Your task to perform on an android device: Open the stopwatch Image 0: 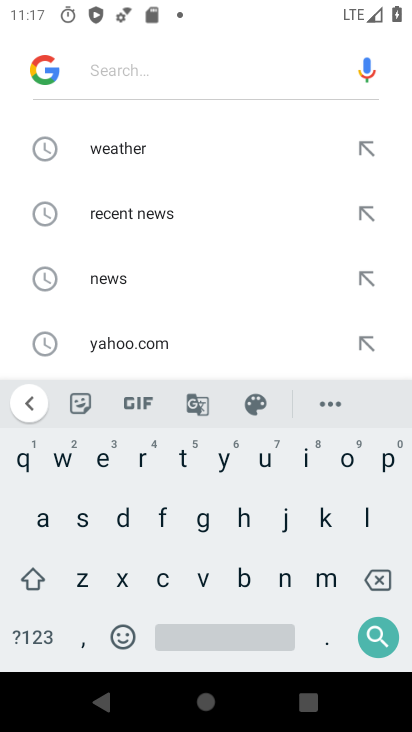
Step 0: press back button
Your task to perform on an android device: Open the stopwatch Image 1: 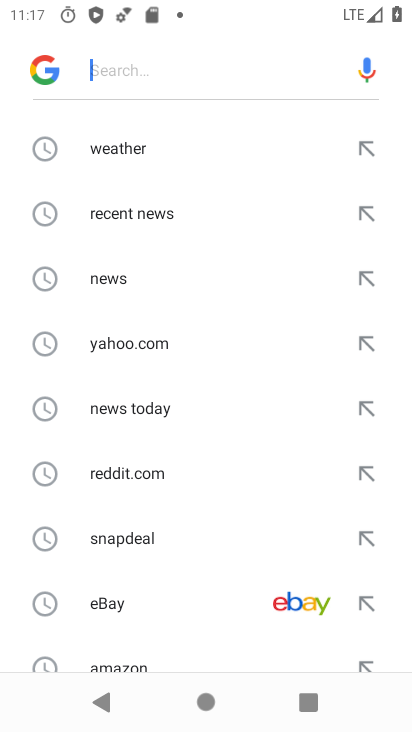
Step 1: press back button
Your task to perform on an android device: Open the stopwatch Image 2: 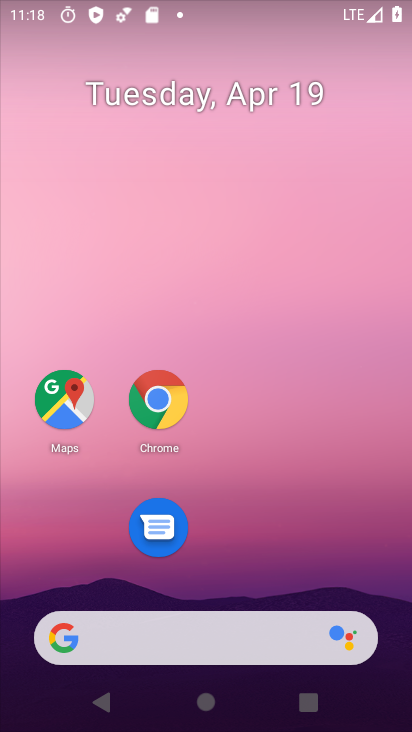
Step 2: drag from (249, 668) to (209, 219)
Your task to perform on an android device: Open the stopwatch Image 3: 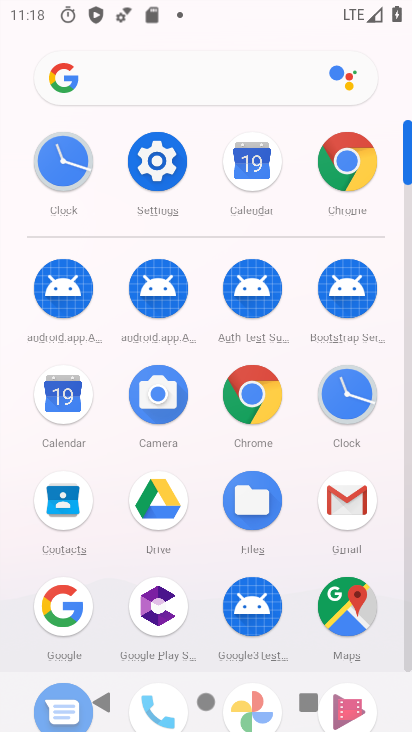
Step 3: click (62, 161)
Your task to perform on an android device: Open the stopwatch Image 4: 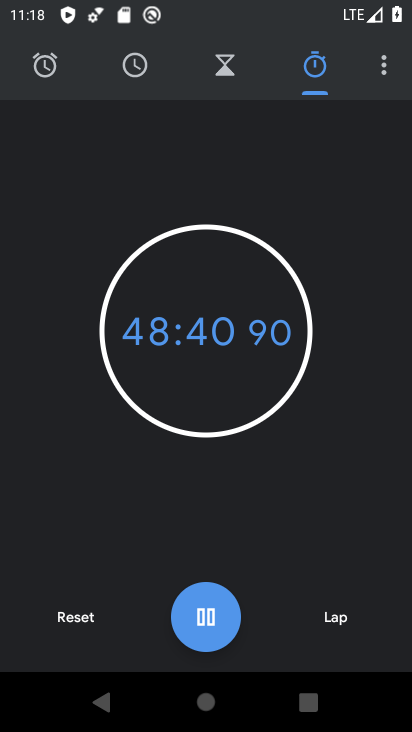
Step 4: click (200, 639)
Your task to perform on an android device: Open the stopwatch Image 5: 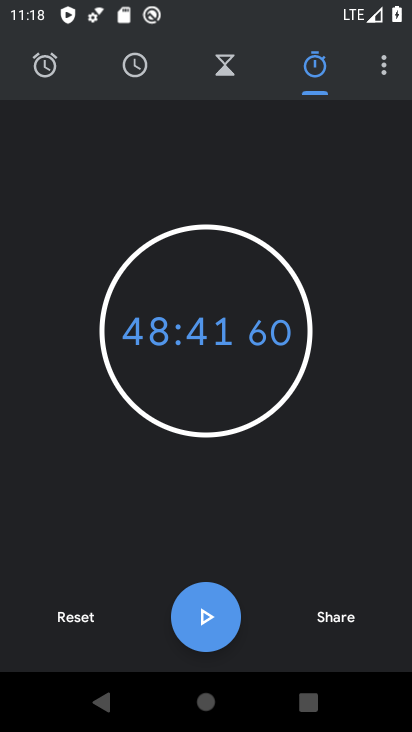
Step 5: task complete